Your task to perform on an android device: Go to Yahoo.com Image 0: 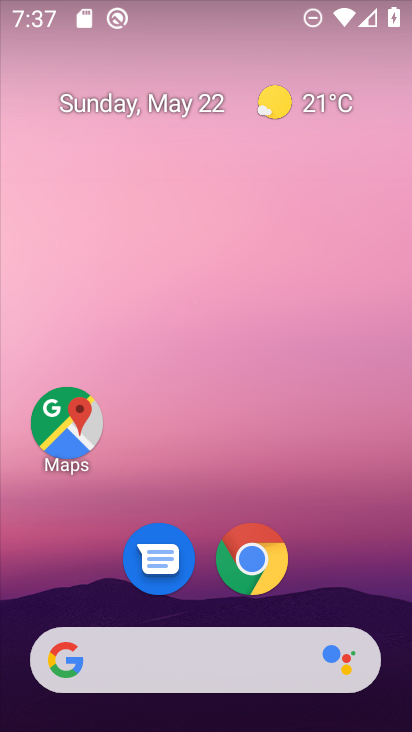
Step 0: press home button
Your task to perform on an android device: Go to Yahoo.com Image 1: 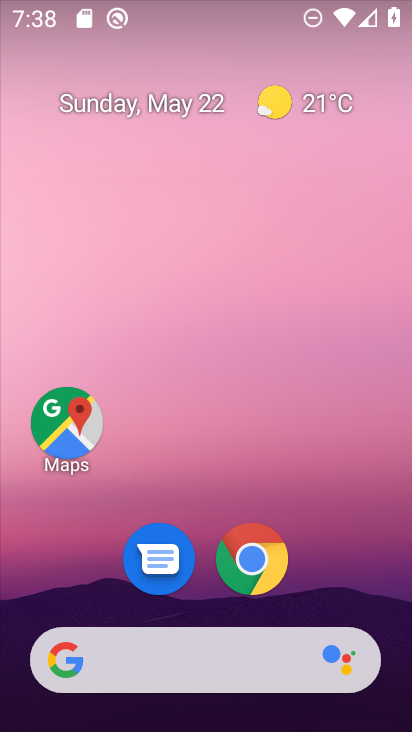
Step 1: drag from (238, 698) to (218, 186)
Your task to perform on an android device: Go to Yahoo.com Image 2: 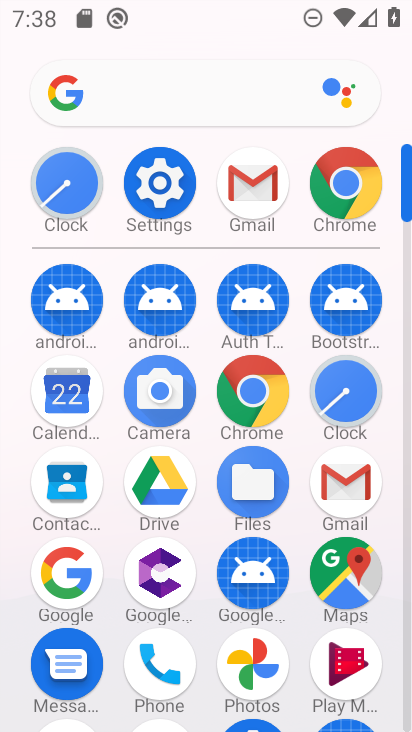
Step 2: click (356, 183)
Your task to perform on an android device: Go to Yahoo.com Image 3: 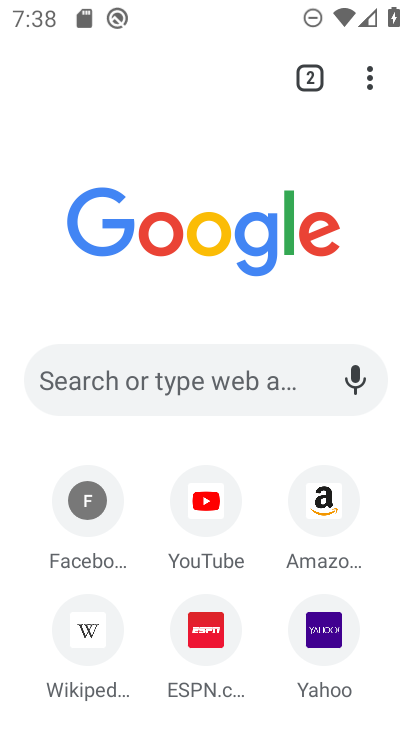
Step 3: click (344, 636)
Your task to perform on an android device: Go to Yahoo.com Image 4: 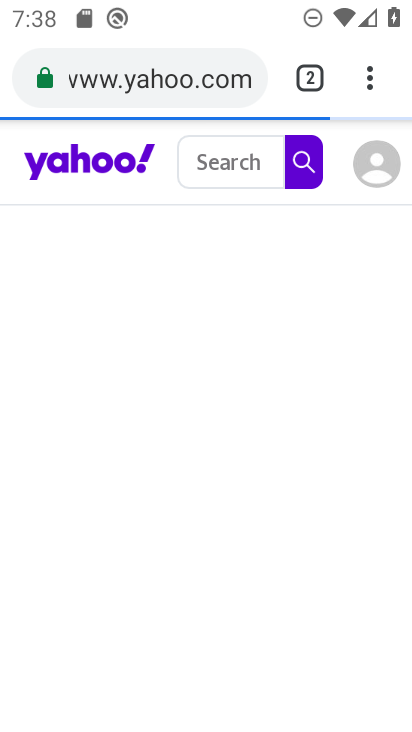
Step 4: task complete